Your task to perform on an android device: Open Reddit.com Image 0: 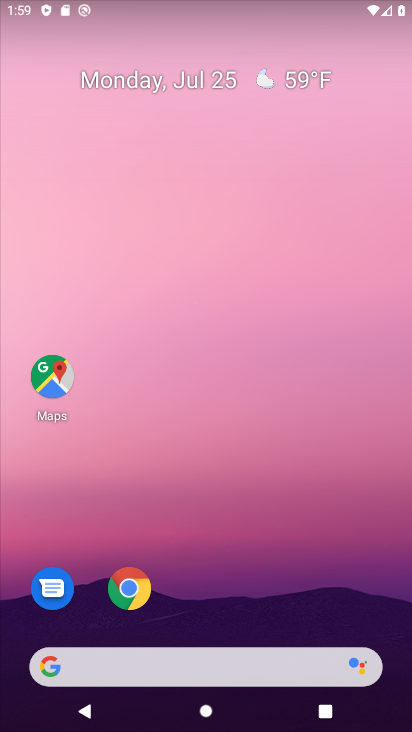
Step 0: click (134, 608)
Your task to perform on an android device: Open Reddit.com Image 1: 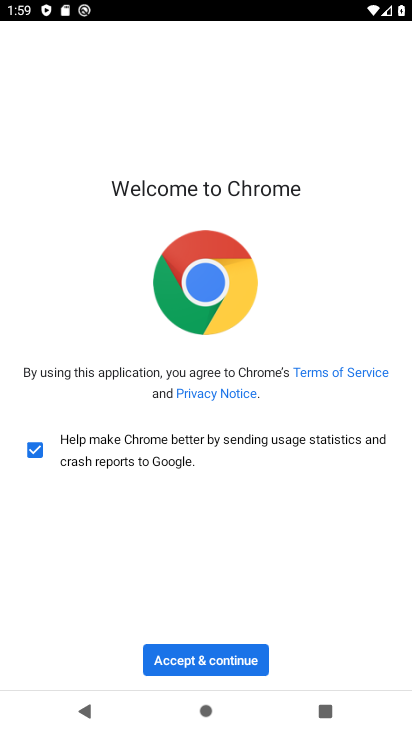
Step 1: click (198, 658)
Your task to perform on an android device: Open Reddit.com Image 2: 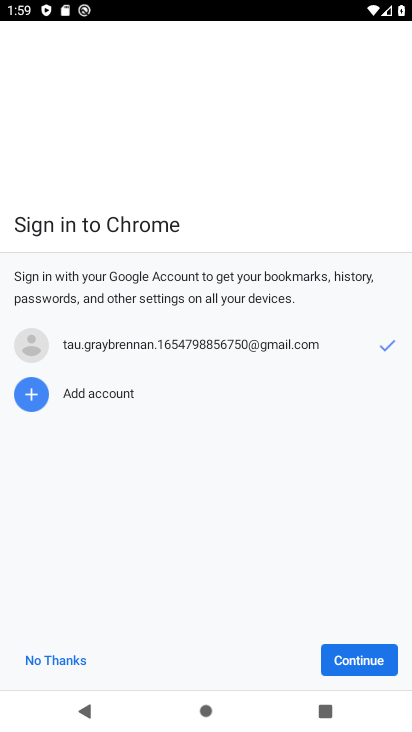
Step 2: click (343, 660)
Your task to perform on an android device: Open Reddit.com Image 3: 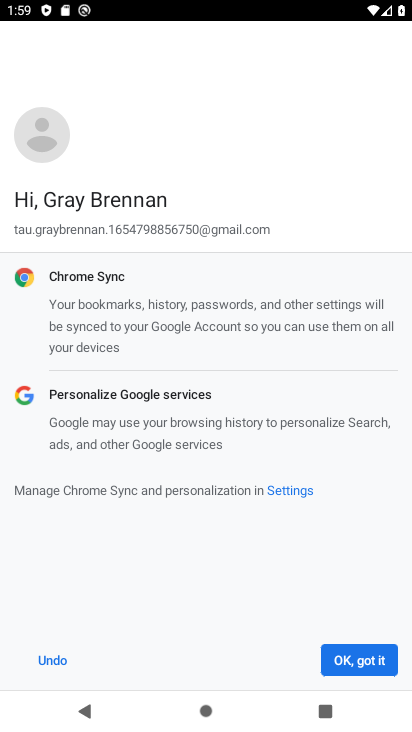
Step 3: click (343, 660)
Your task to perform on an android device: Open Reddit.com Image 4: 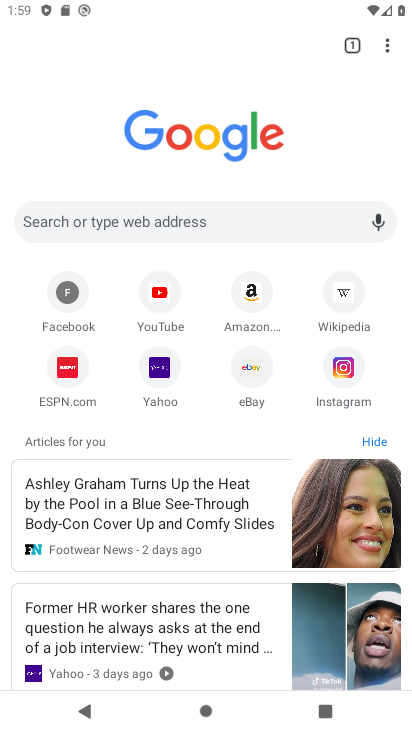
Step 4: click (204, 220)
Your task to perform on an android device: Open Reddit.com Image 5: 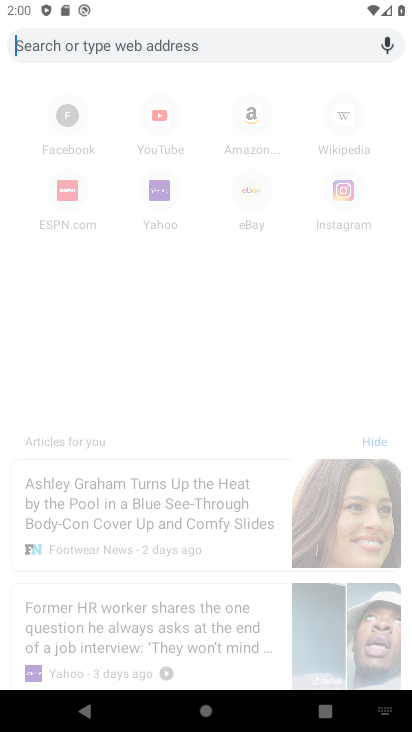
Step 5: type "reddit.com"
Your task to perform on an android device: Open Reddit.com Image 6: 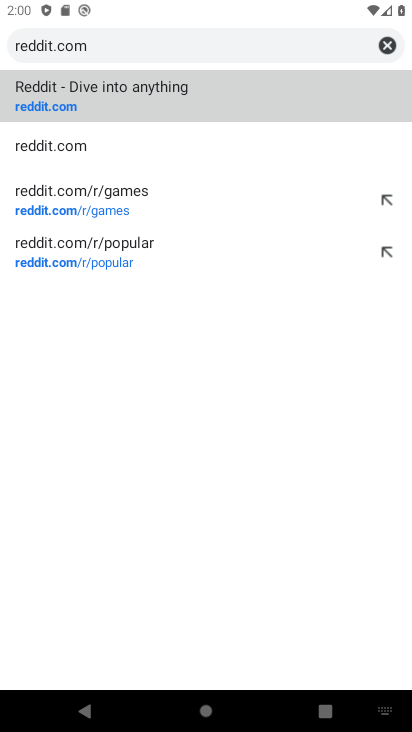
Step 6: click (192, 83)
Your task to perform on an android device: Open Reddit.com Image 7: 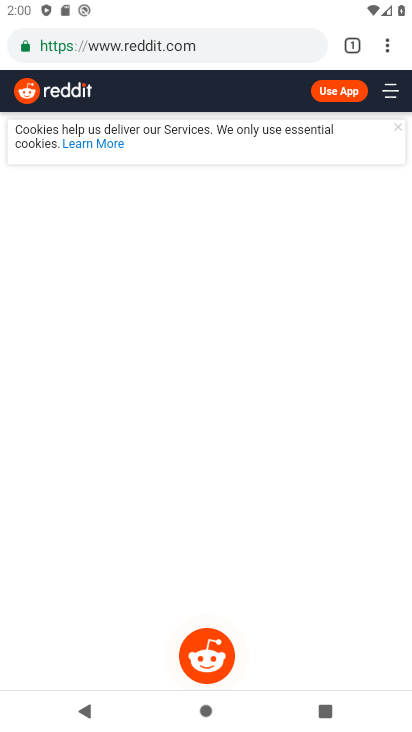
Step 7: task complete